Your task to perform on an android device: open chrome and create a bookmark for the current page Image 0: 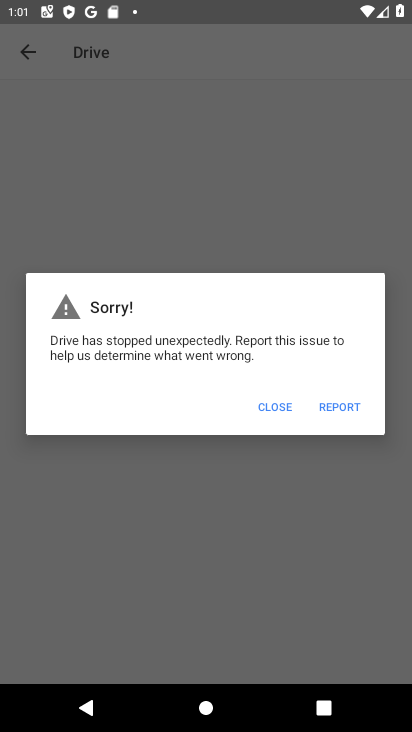
Step 0: press home button
Your task to perform on an android device: open chrome and create a bookmark for the current page Image 1: 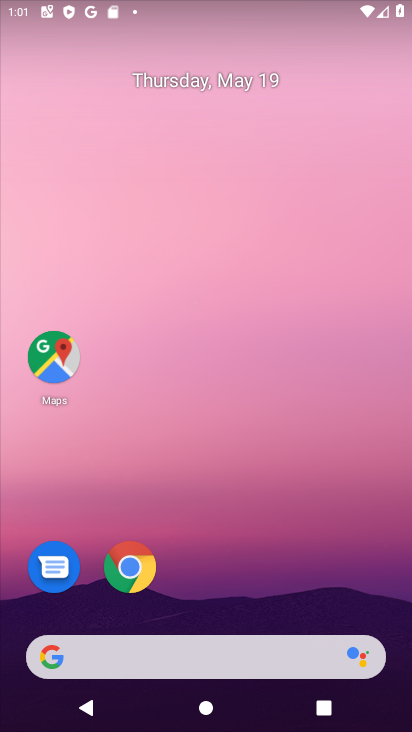
Step 1: drag from (281, 504) to (241, 133)
Your task to perform on an android device: open chrome and create a bookmark for the current page Image 2: 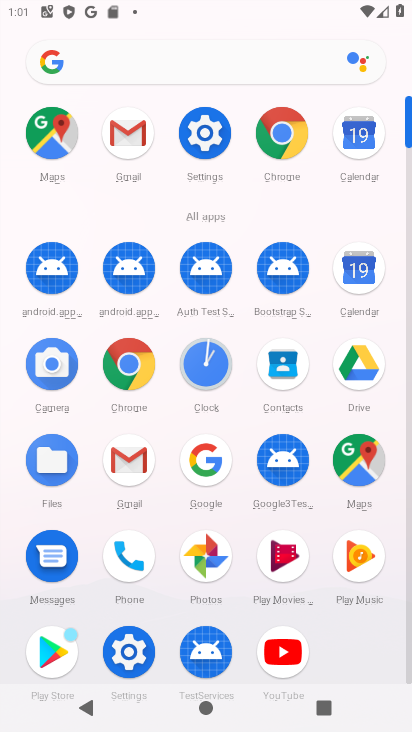
Step 2: click (284, 152)
Your task to perform on an android device: open chrome and create a bookmark for the current page Image 3: 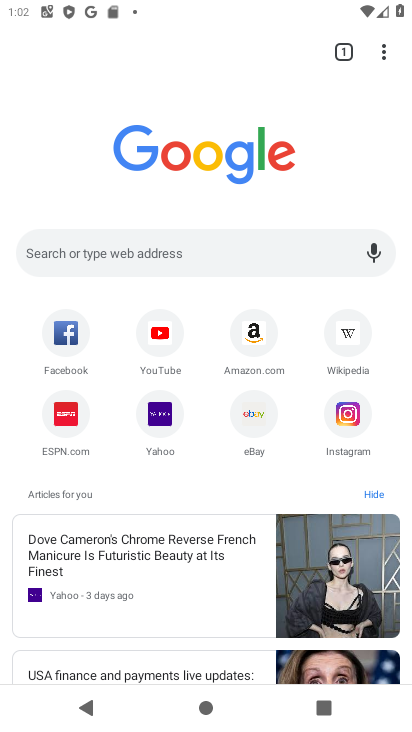
Step 3: task complete